Your task to perform on an android device: Open calendar and show me the first week of next month Image 0: 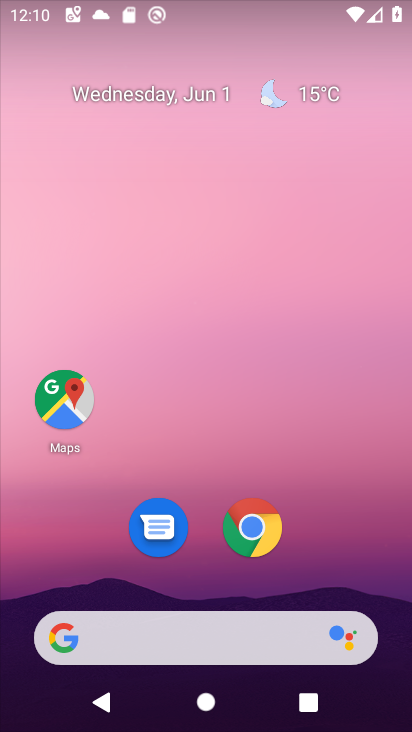
Step 0: drag from (355, 586) to (383, 10)
Your task to perform on an android device: Open calendar and show me the first week of next month Image 1: 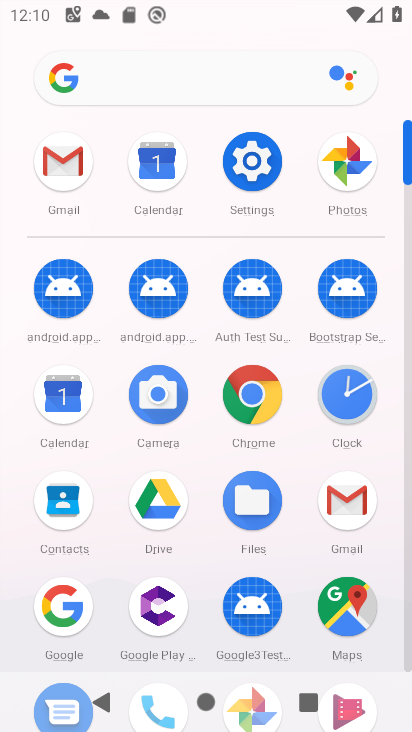
Step 1: click (152, 157)
Your task to perform on an android device: Open calendar and show me the first week of next month Image 2: 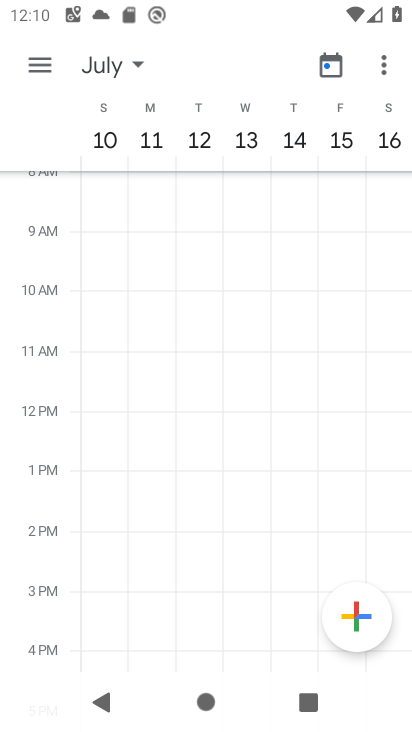
Step 2: task complete